Your task to perform on an android device: Show me popular videos on Youtube Image 0: 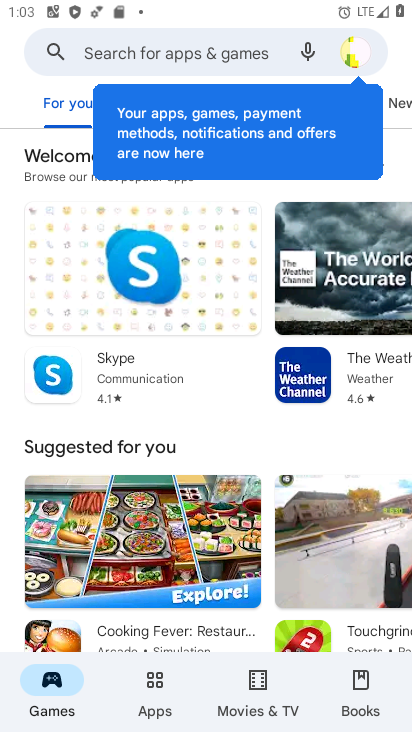
Step 0: press back button
Your task to perform on an android device: Show me popular videos on Youtube Image 1: 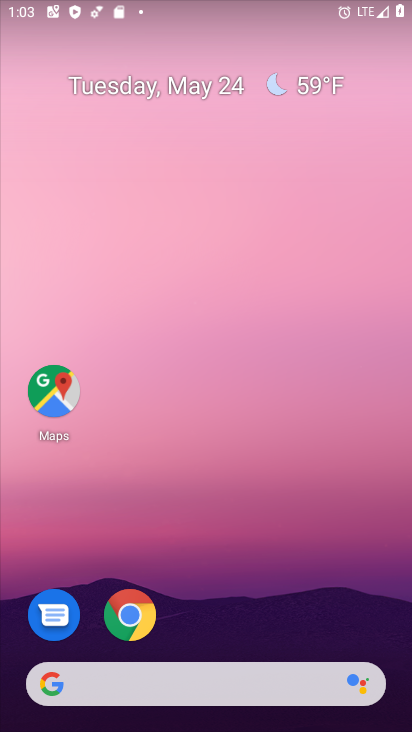
Step 1: drag from (245, 617) to (252, 70)
Your task to perform on an android device: Show me popular videos on Youtube Image 2: 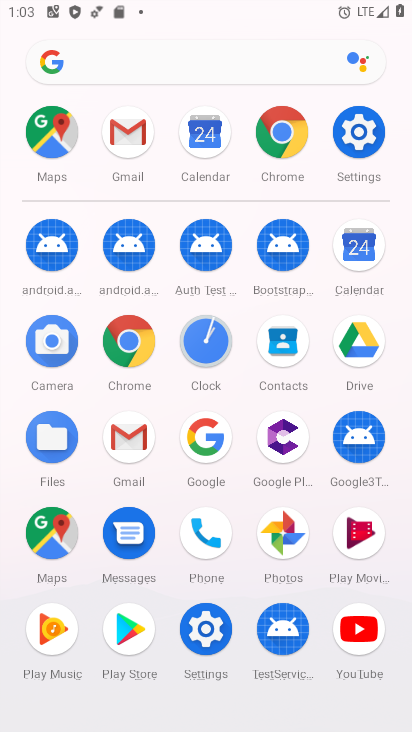
Step 2: click (361, 617)
Your task to perform on an android device: Show me popular videos on Youtube Image 3: 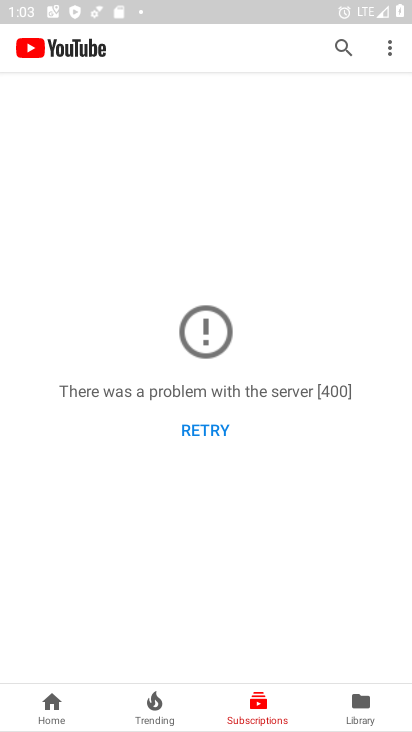
Step 3: click (50, 716)
Your task to perform on an android device: Show me popular videos on Youtube Image 4: 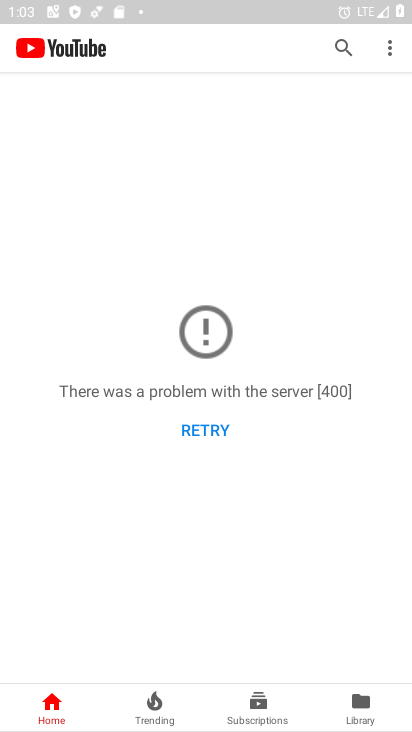
Step 4: task complete